Your task to perform on an android device: Open Maps and search for coffee Image 0: 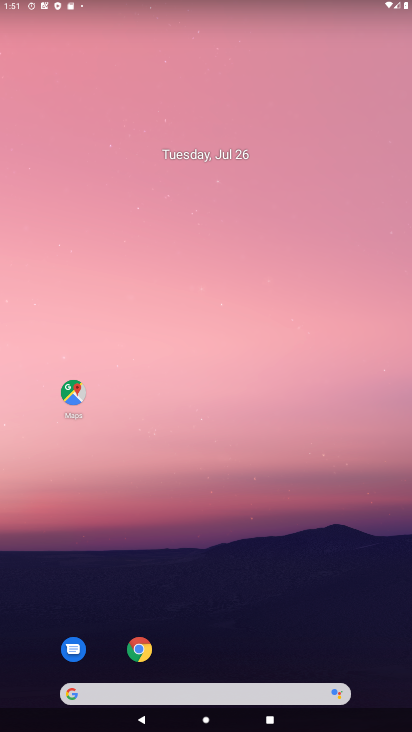
Step 0: drag from (322, 638) to (187, 96)
Your task to perform on an android device: Open Maps and search for coffee Image 1: 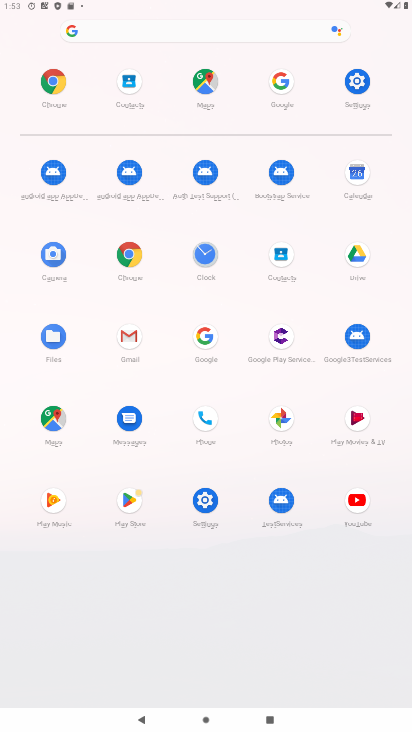
Step 1: click (58, 423)
Your task to perform on an android device: Open Maps and search for coffee Image 2: 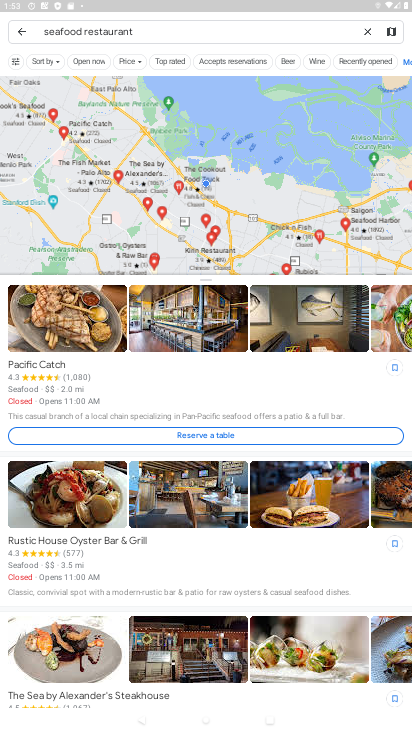
Step 2: click (367, 32)
Your task to perform on an android device: Open Maps and search for coffee Image 3: 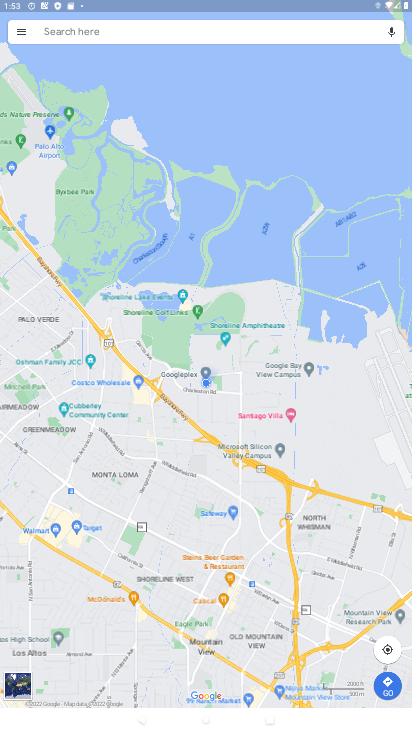
Step 3: click (75, 34)
Your task to perform on an android device: Open Maps and search for coffee Image 4: 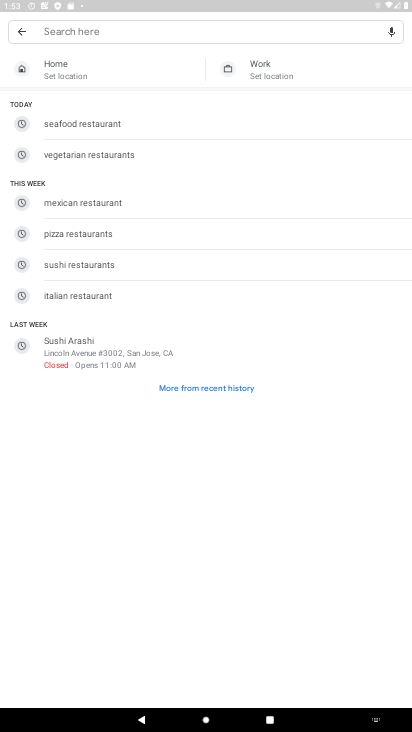
Step 4: type "coffee"
Your task to perform on an android device: Open Maps and search for coffee Image 5: 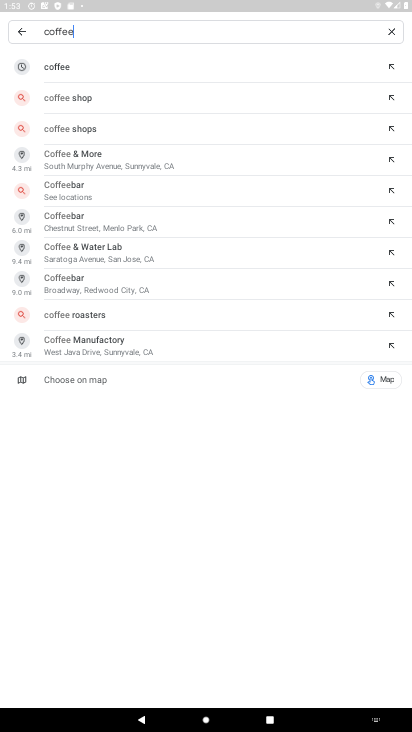
Step 5: click (71, 72)
Your task to perform on an android device: Open Maps and search for coffee Image 6: 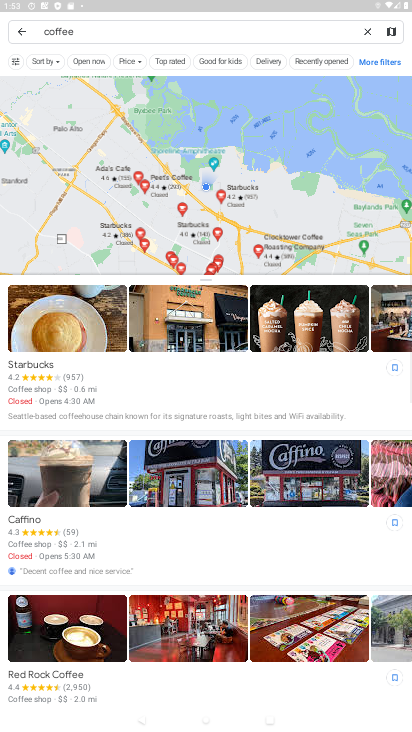
Step 6: task complete